Your task to perform on an android device: see sites visited before in the chrome app Image 0: 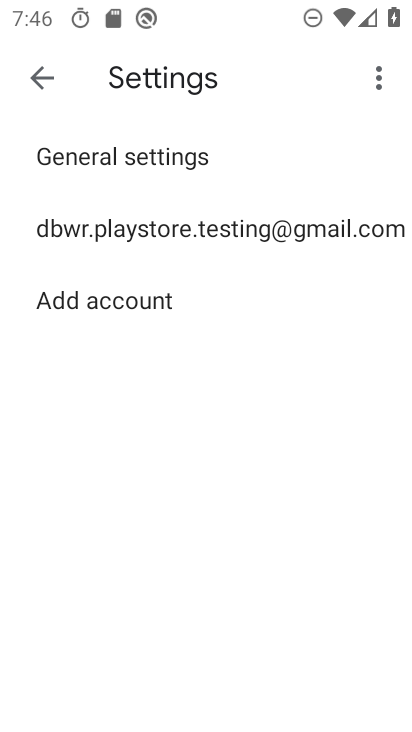
Step 0: press home button
Your task to perform on an android device: see sites visited before in the chrome app Image 1: 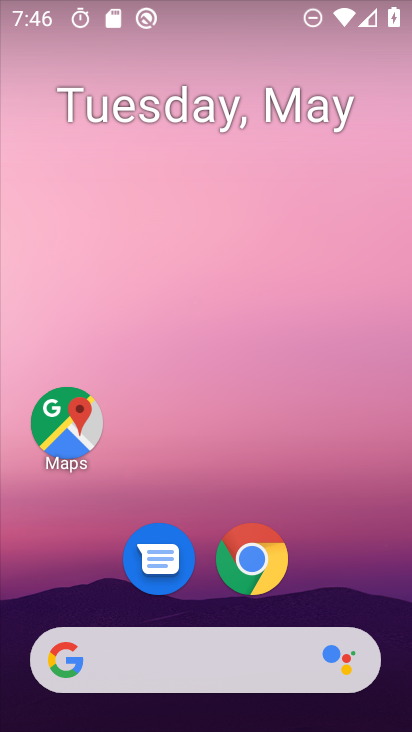
Step 1: drag from (393, 626) to (262, 17)
Your task to perform on an android device: see sites visited before in the chrome app Image 2: 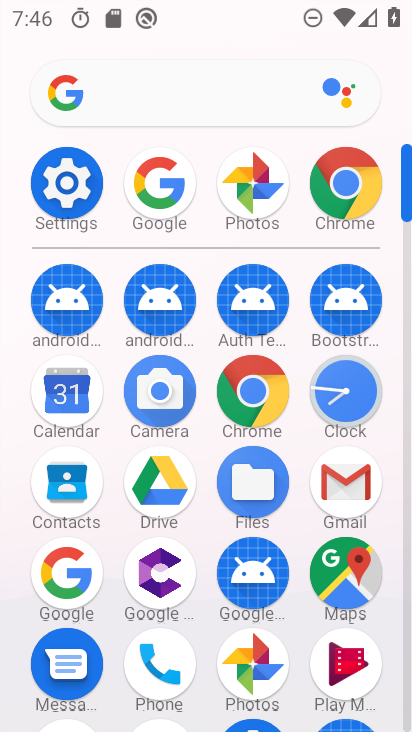
Step 2: click (322, 194)
Your task to perform on an android device: see sites visited before in the chrome app Image 3: 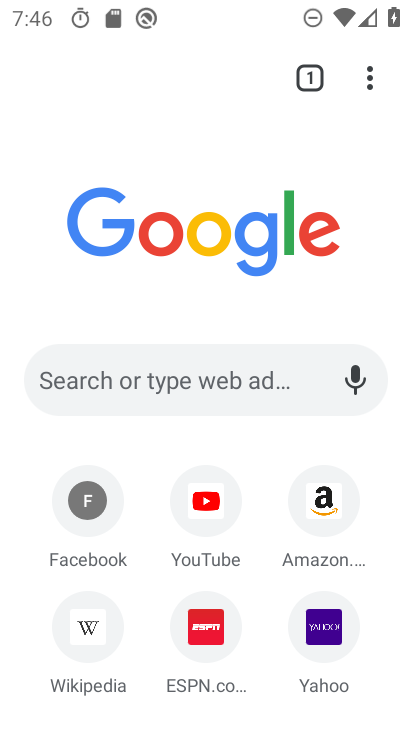
Step 3: click (372, 76)
Your task to perform on an android device: see sites visited before in the chrome app Image 4: 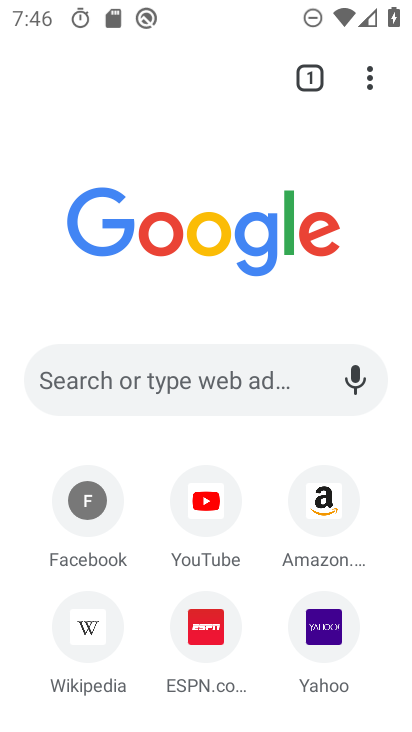
Step 4: click (370, 62)
Your task to perform on an android device: see sites visited before in the chrome app Image 5: 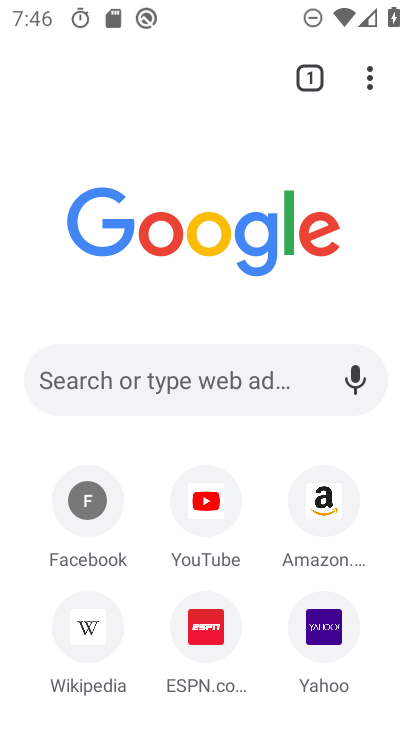
Step 5: click (369, 72)
Your task to perform on an android device: see sites visited before in the chrome app Image 6: 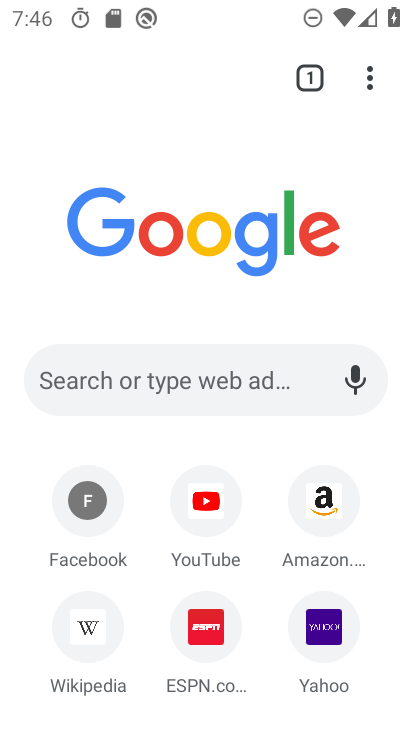
Step 6: click (369, 72)
Your task to perform on an android device: see sites visited before in the chrome app Image 7: 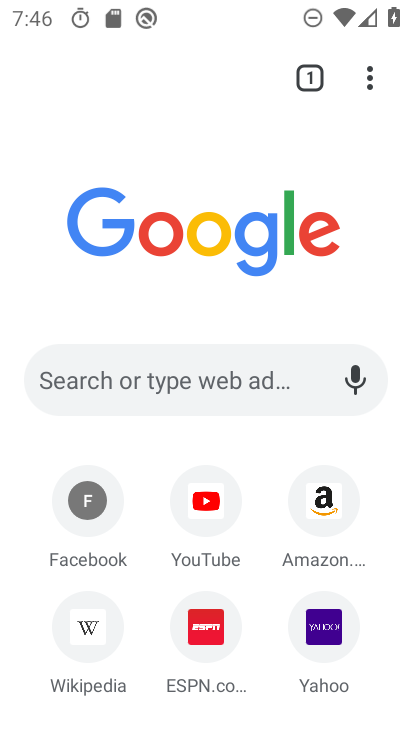
Step 7: click (372, 76)
Your task to perform on an android device: see sites visited before in the chrome app Image 8: 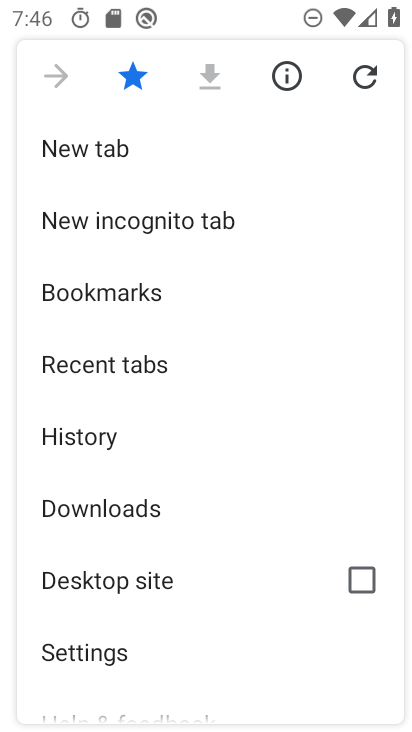
Step 8: click (98, 418)
Your task to perform on an android device: see sites visited before in the chrome app Image 9: 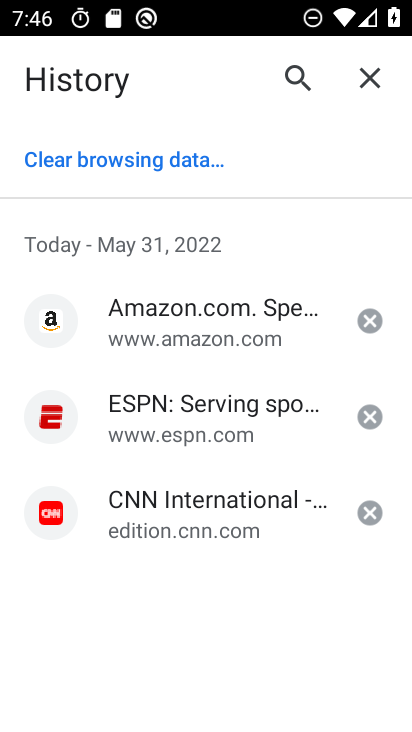
Step 9: click (150, 326)
Your task to perform on an android device: see sites visited before in the chrome app Image 10: 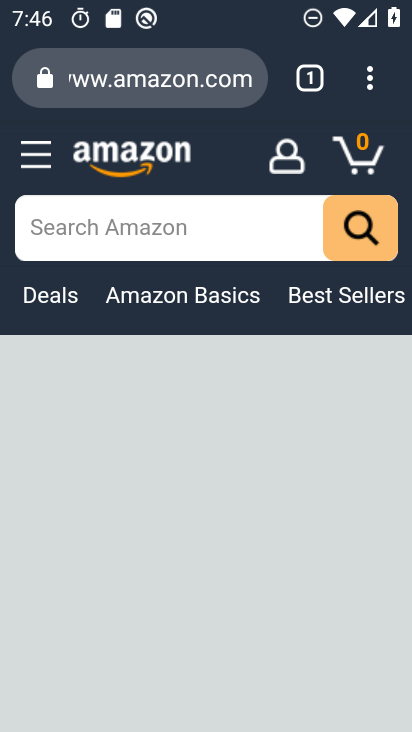
Step 10: task complete